Your task to perform on an android device: read, delete, or share a saved page in the chrome app Image 0: 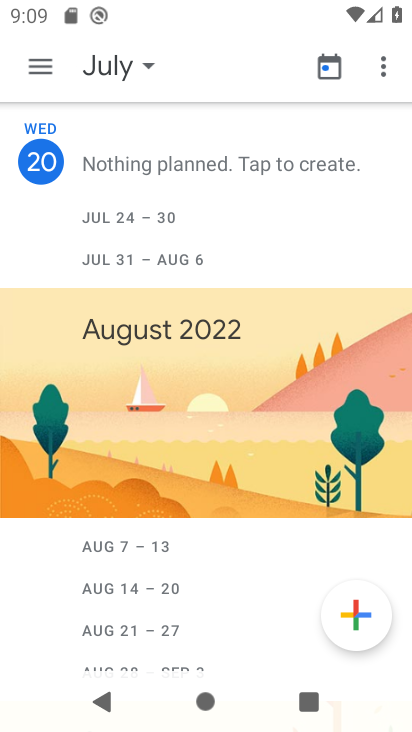
Step 0: press home button
Your task to perform on an android device: read, delete, or share a saved page in the chrome app Image 1: 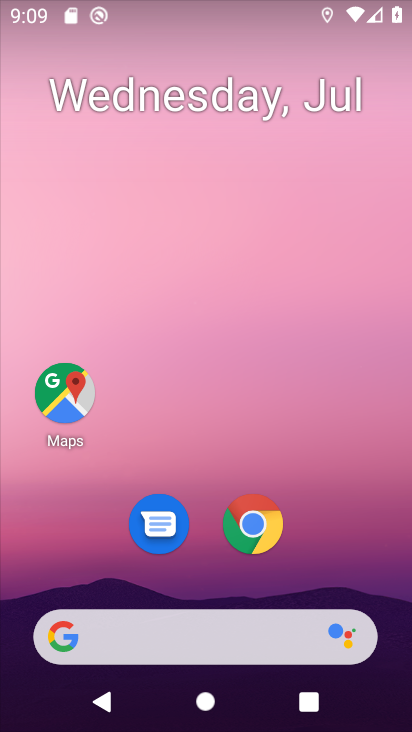
Step 1: drag from (317, 558) to (323, 85)
Your task to perform on an android device: read, delete, or share a saved page in the chrome app Image 2: 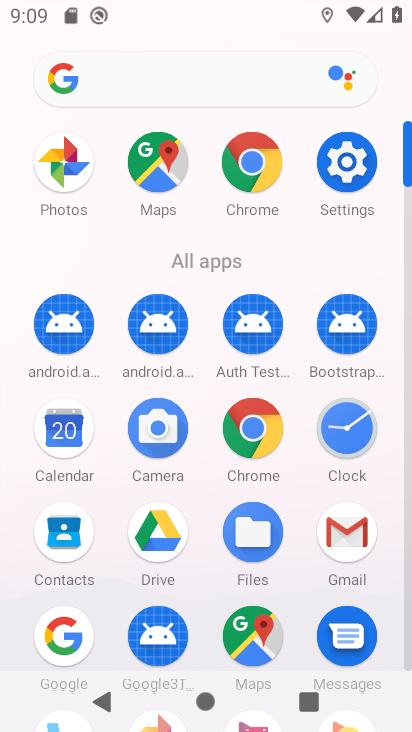
Step 2: click (257, 156)
Your task to perform on an android device: read, delete, or share a saved page in the chrome app Image 3: 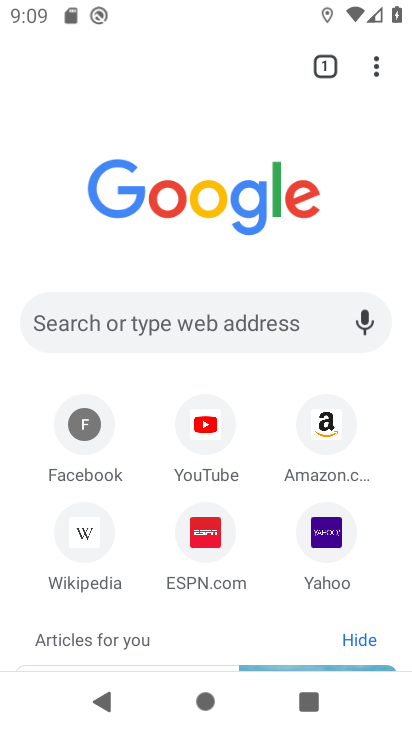
Step 3: click (373, 69)
Your task to perform on an android device: read, delete, or share a saved page in the chrome app Image 4: 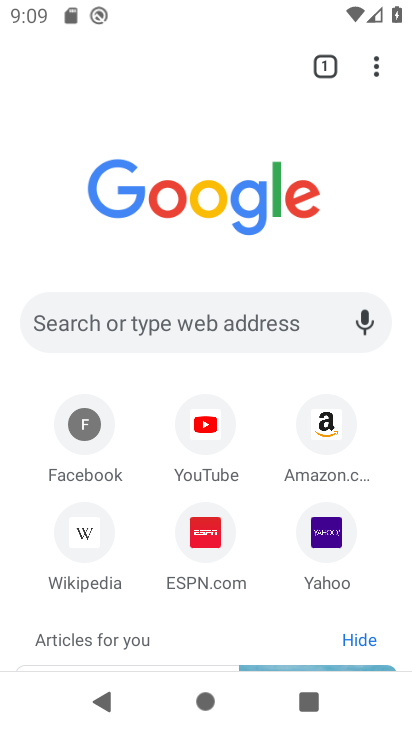
Step 4: click (373, 71)
Your task to perform on an android device: read, delete, or share a saved page in the chrome app Image 5: 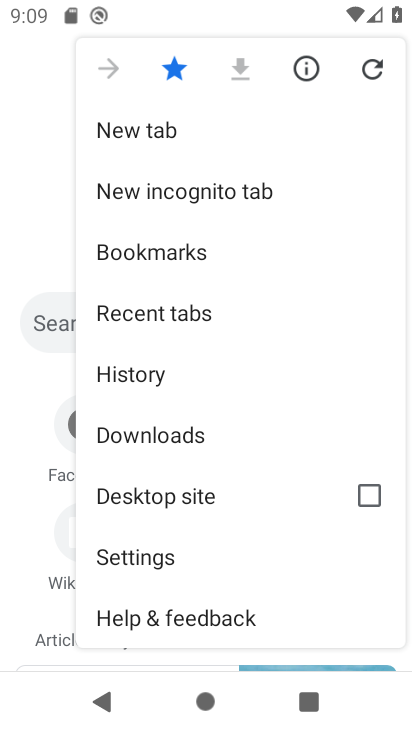
Step 5: click (184, 432)
Your task to perform on an android device: read, delete, or share a saved page in the chrome app Image 6: 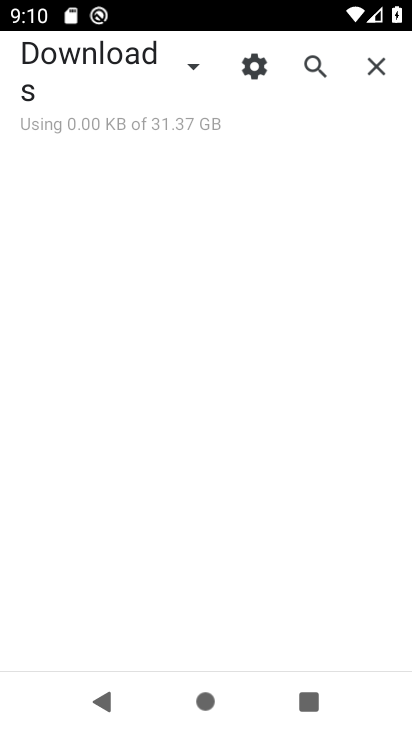
Step 6: task complete